Your task to perform on an android device: Go to internet settings Image 0: 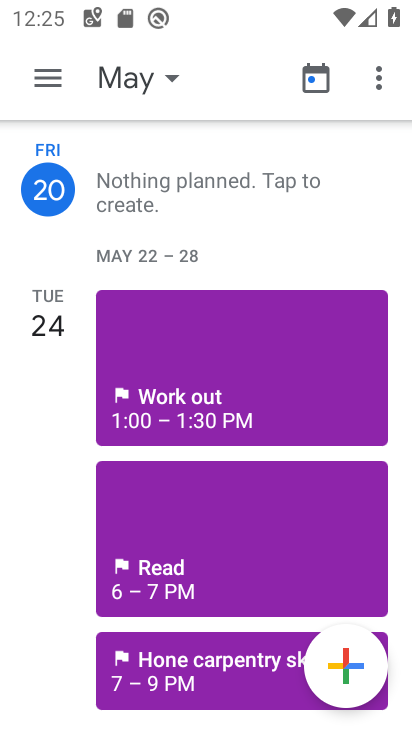
Step 0: press home button
Your task to perform on an android device: Go to internet settings Image 1: 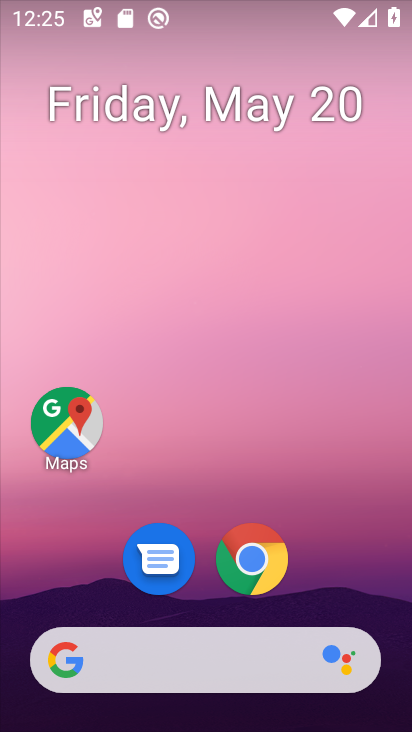
Step 1: drag from (365, 566) to (294, 148)
Your task to perform on an android device: Go to internet settings Image 2: 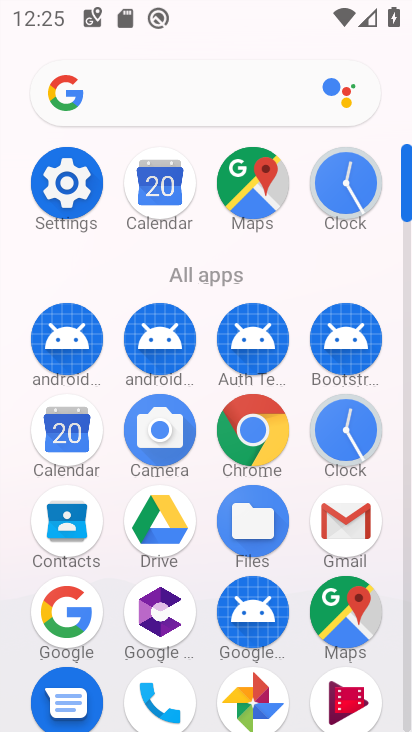
Step 2: click (64, 165)
Your task to perform on an android device: Go to internet settings Image 3: 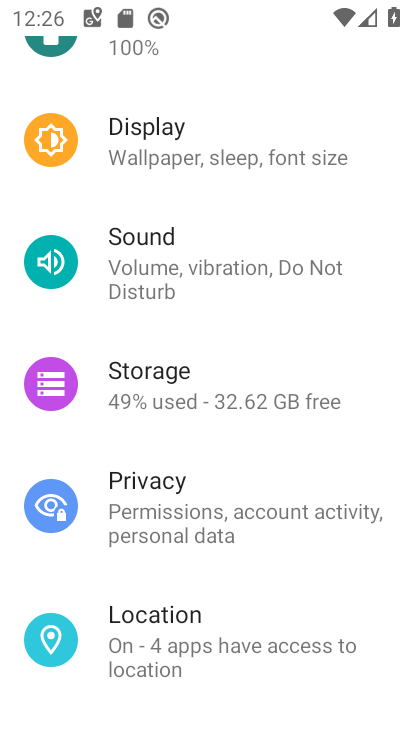
Step 3: drag from (309, 150) to (289, 612)
Your task to perform on an android device: Go to internet settings Image 4: 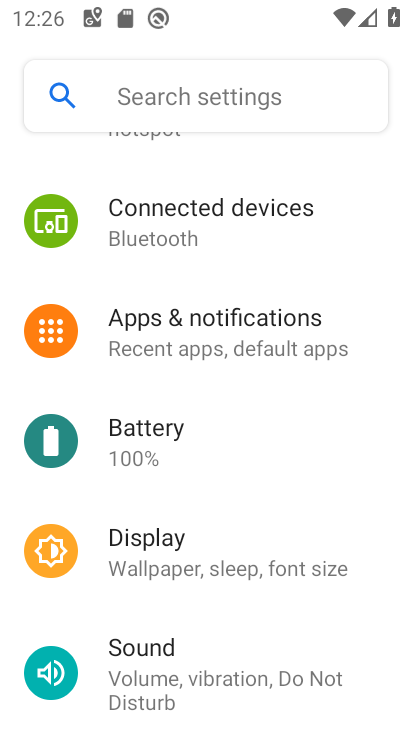
Step 4: drag from (222, 215) to (257, 730)
Your task to perform on an android device: Go to internet settings Image 5: 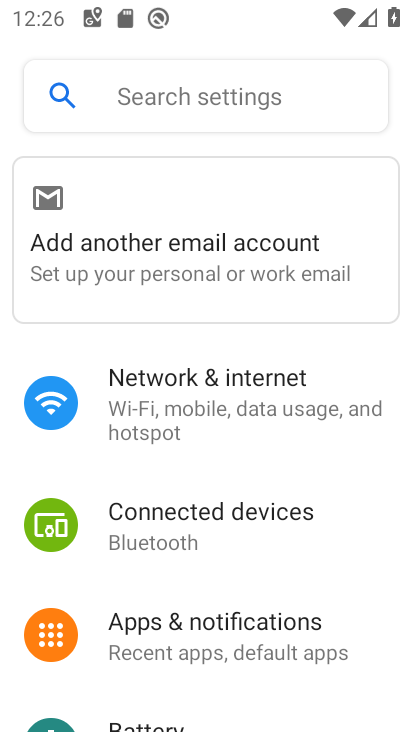
Step 5: click (235, 414)
Your task to perform on an android device: Go to internet settings Image 6: 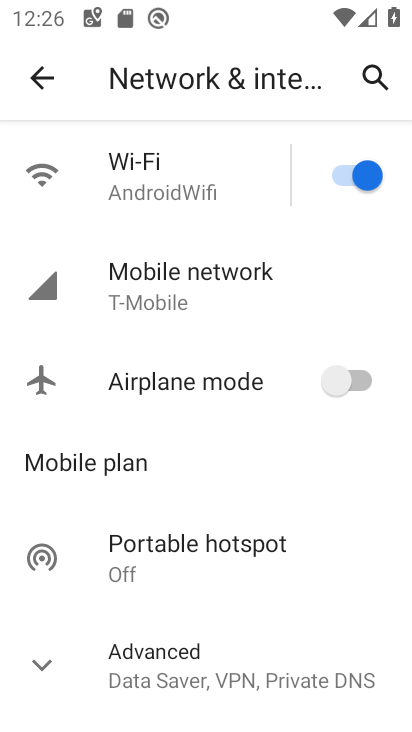
Step 6: task complete